Your task to perform on an android device: find snoozed emails in the gmail app Image 0: 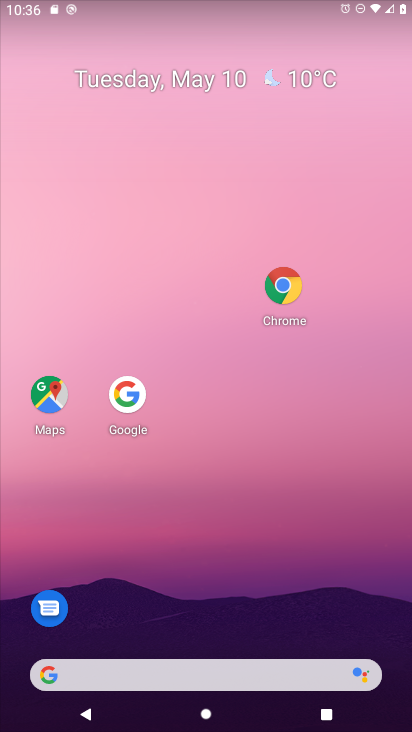
Step 0: drag from (128, 653) to (278, 239)
Your task to perform on an android device: find snoozed emails in the gmail app Image 1: 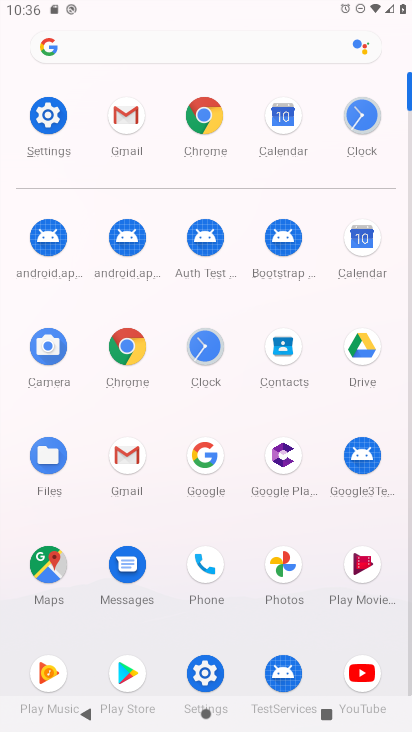
Step 1: click (126, 126)
Your task to perform on an android device: find snoozed emails in the gmail app Image 2: 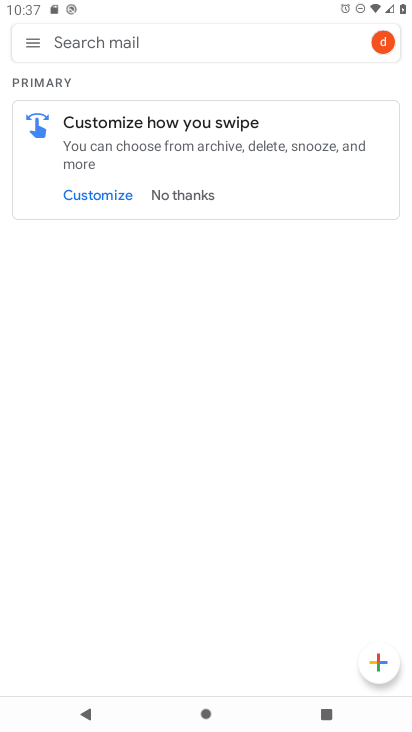
Step 2: click (32, 43)
Your task to perform on an android device: find snoozed emails in the gmail app Image 3: 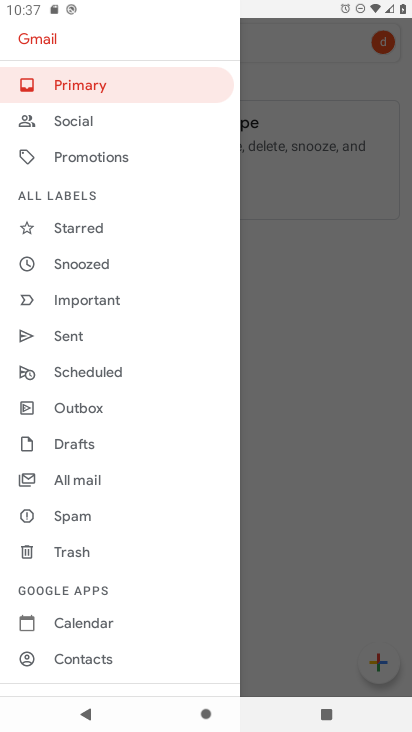
Step 3: click (90, 268)
Your task to perform on an android device: find snoozed emails in the gmail app Image 4: 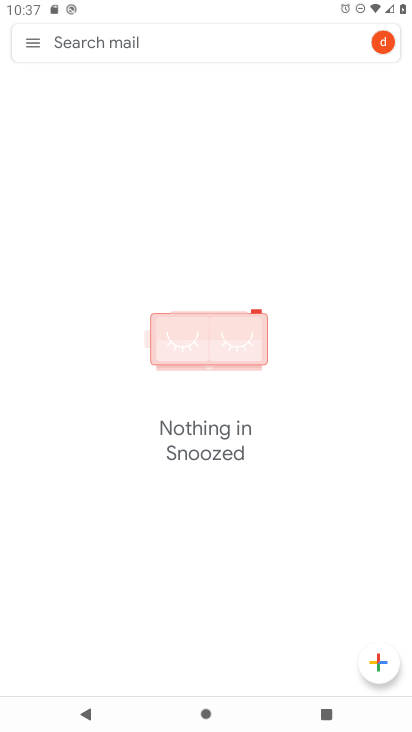
Step 4: task complete